Your task to perform on an android device: Clear the shopping cart on ebay. Add acer predator to the cart on ebay Image 0: 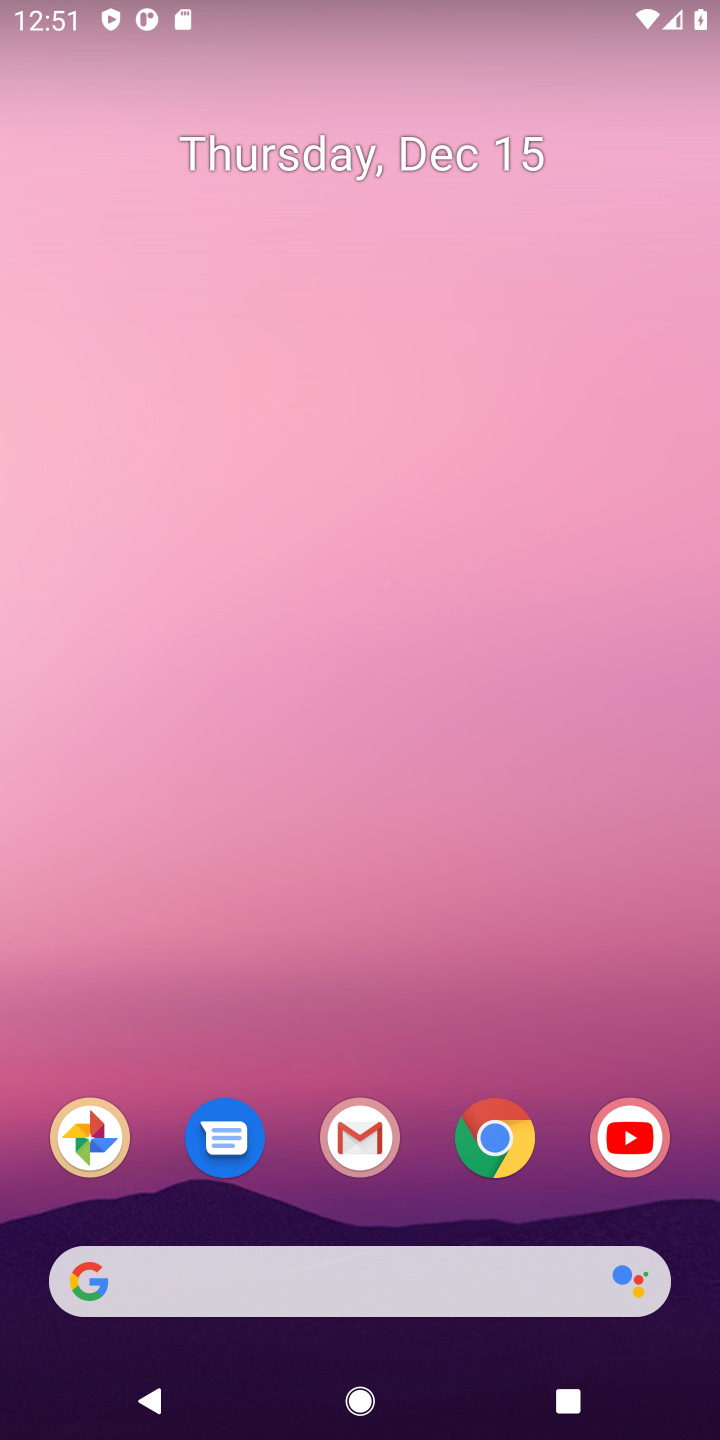
Step 0: click (502, 1150)
Your task to perform on an android device: Clear the shopping cart on ebay. Add acer predator to the cart on ebay Image 1: 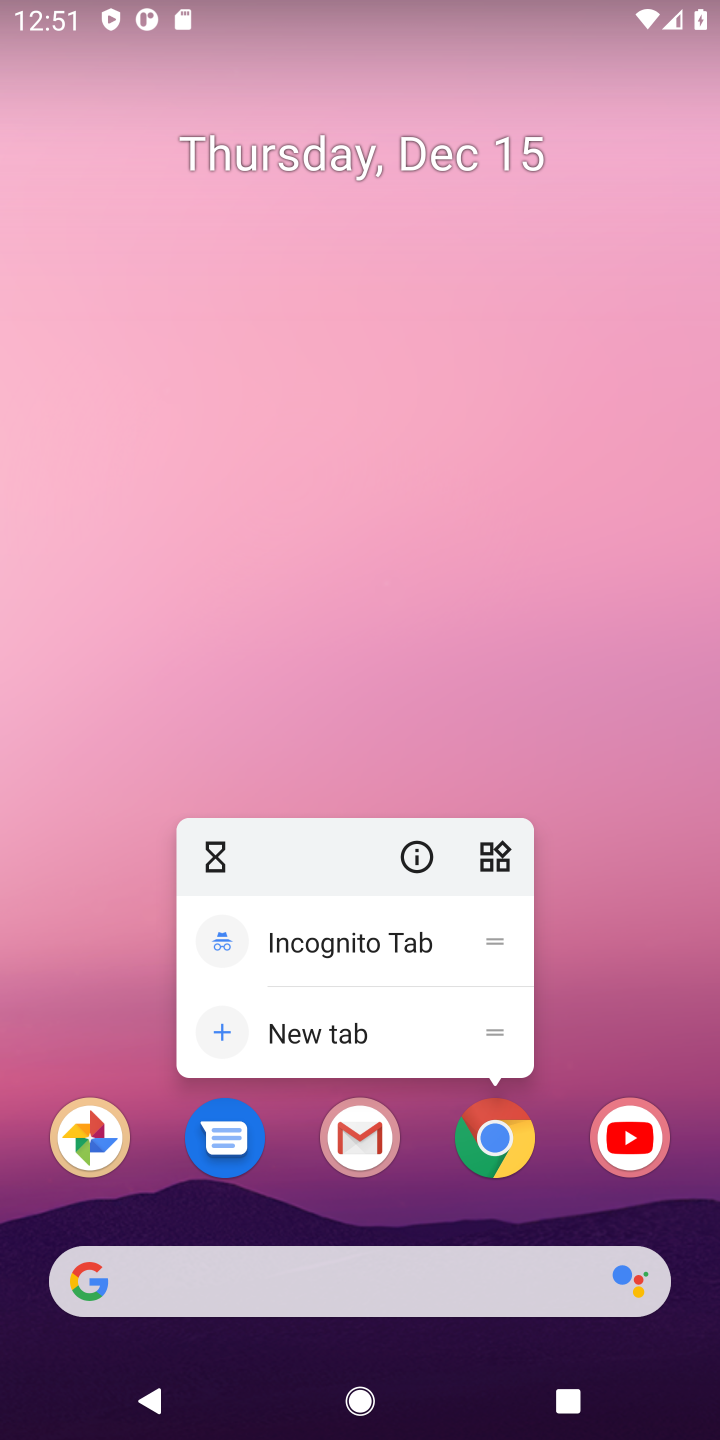
Step 1: click (510, 1177)
Your task to perform on an android device: Clear the shopping cart on ebay. Add acer predator to the cart on ebay Image 2: 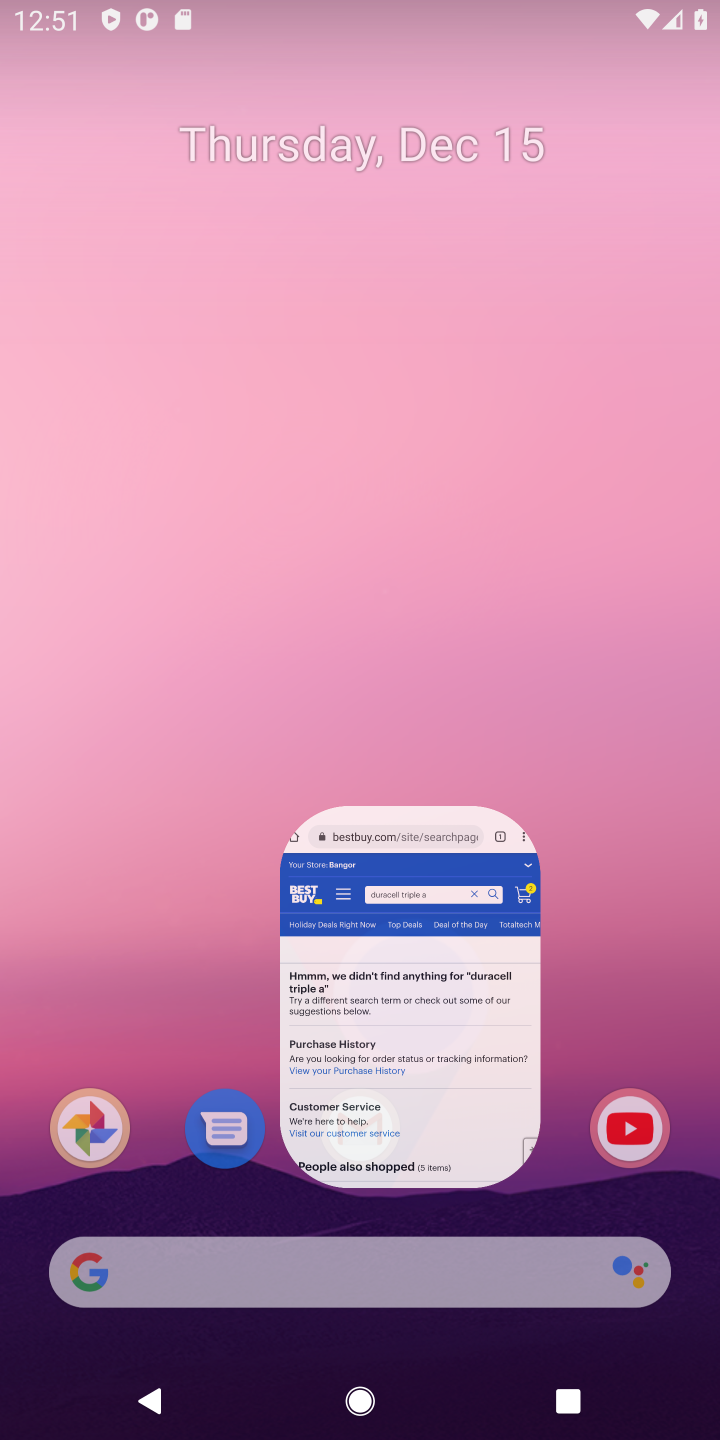
Step 2: click (510, 1177)
Your task to perform on an android device: Clear the shopping cart on ebay. Add acer predator to the cart on ebay Image 3: 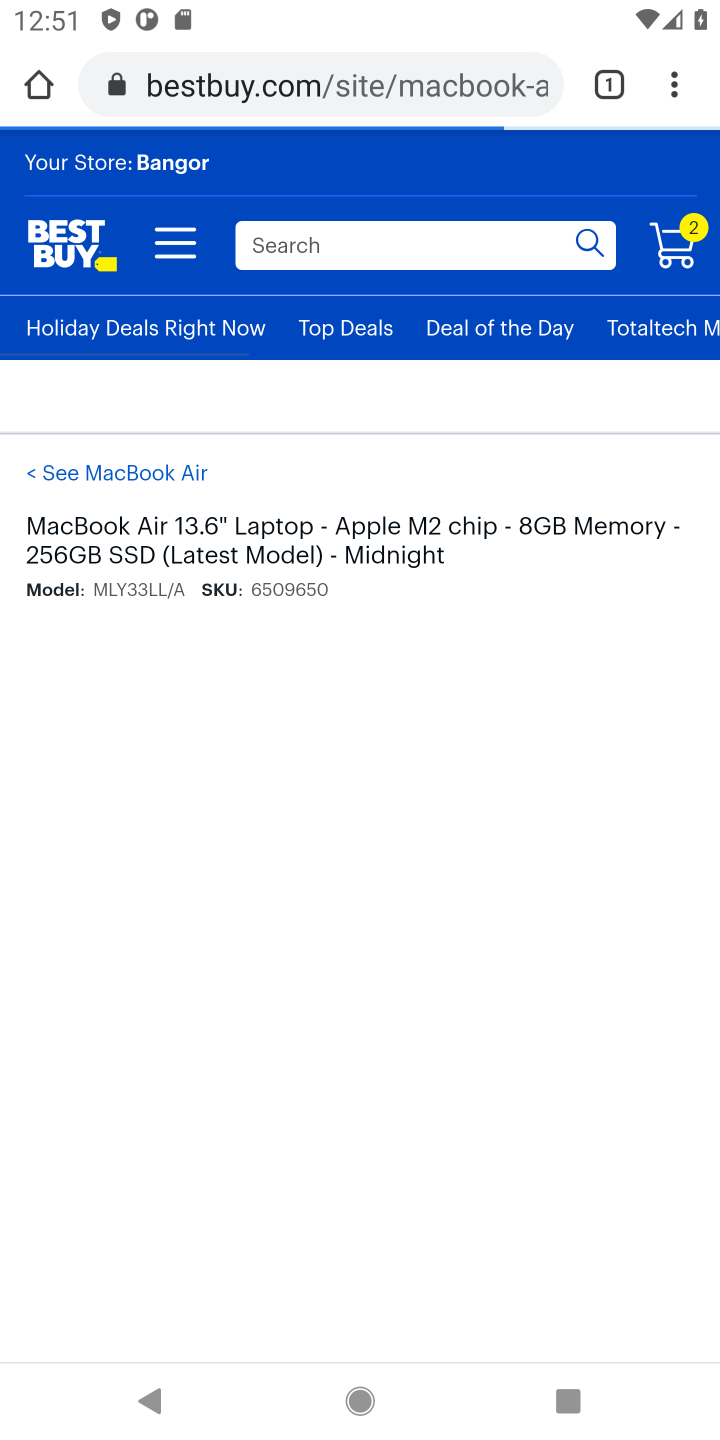
Step 3: click (181, 102)
Your task to perform on an android device: Clear the shopping cart on ebay. Add acer predator to the cart on ebay Image 4: 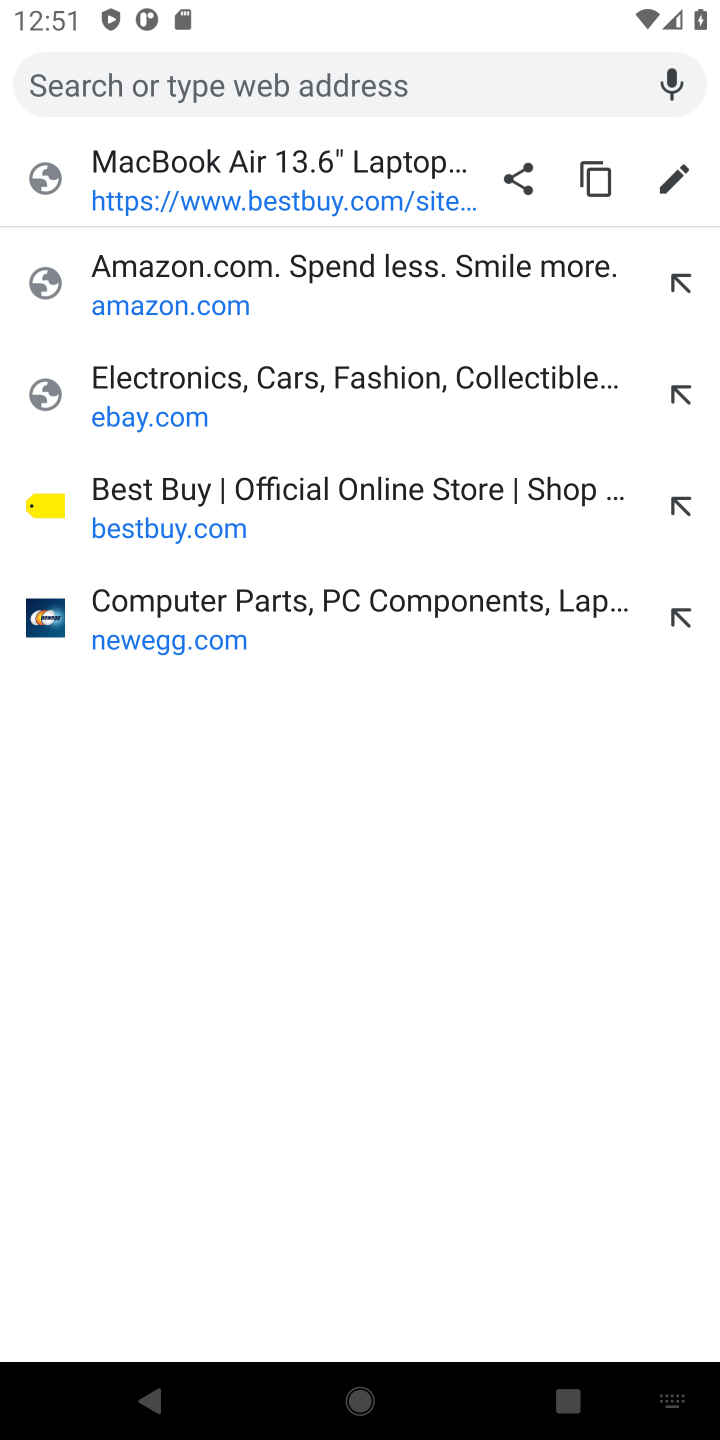
Step 4: click (170, 394)
Your task to perform on an android device: Clear the shopping cart on ebay. Add acer predator to the cart on ebay Image 5: 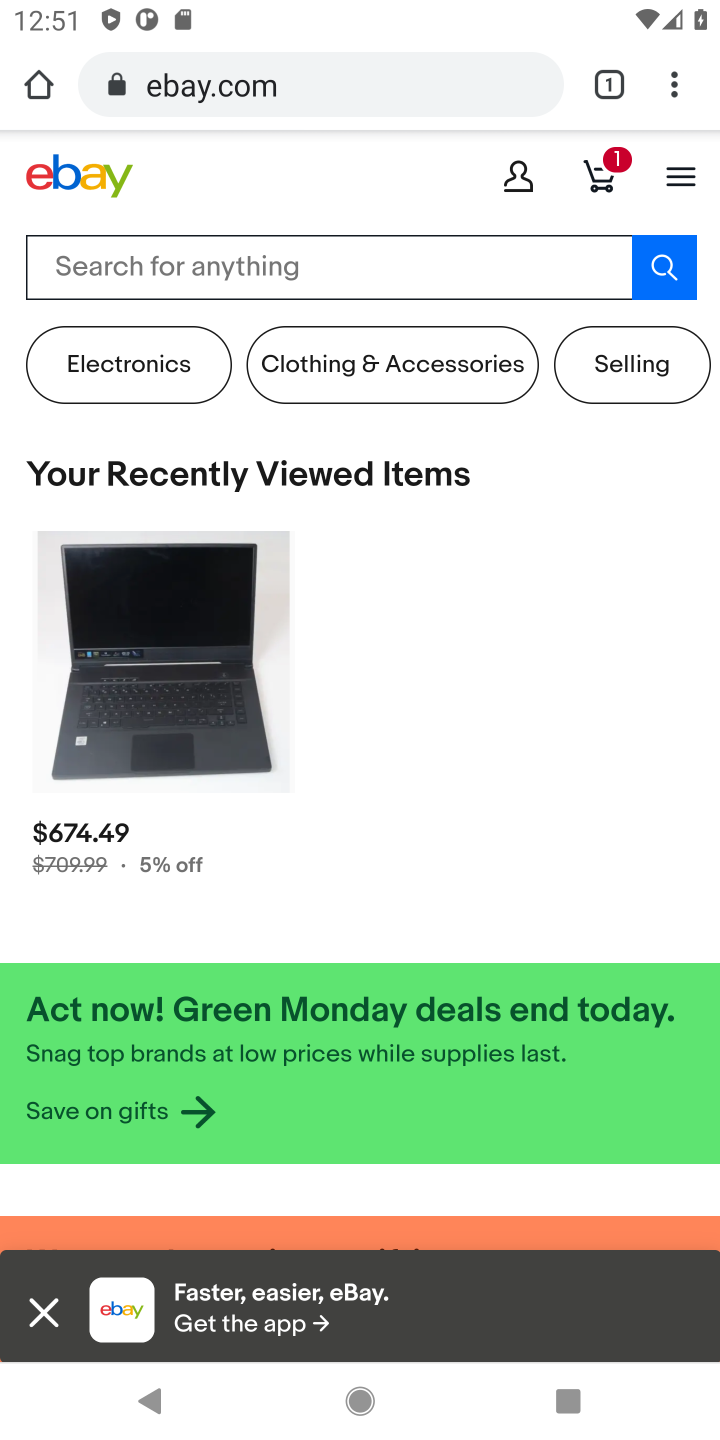
Step 5: click (608, 163)
Your task to perform on an android device: Clear the shopping cart on ebay. Add acer predator to the cart on ebay Image 6: 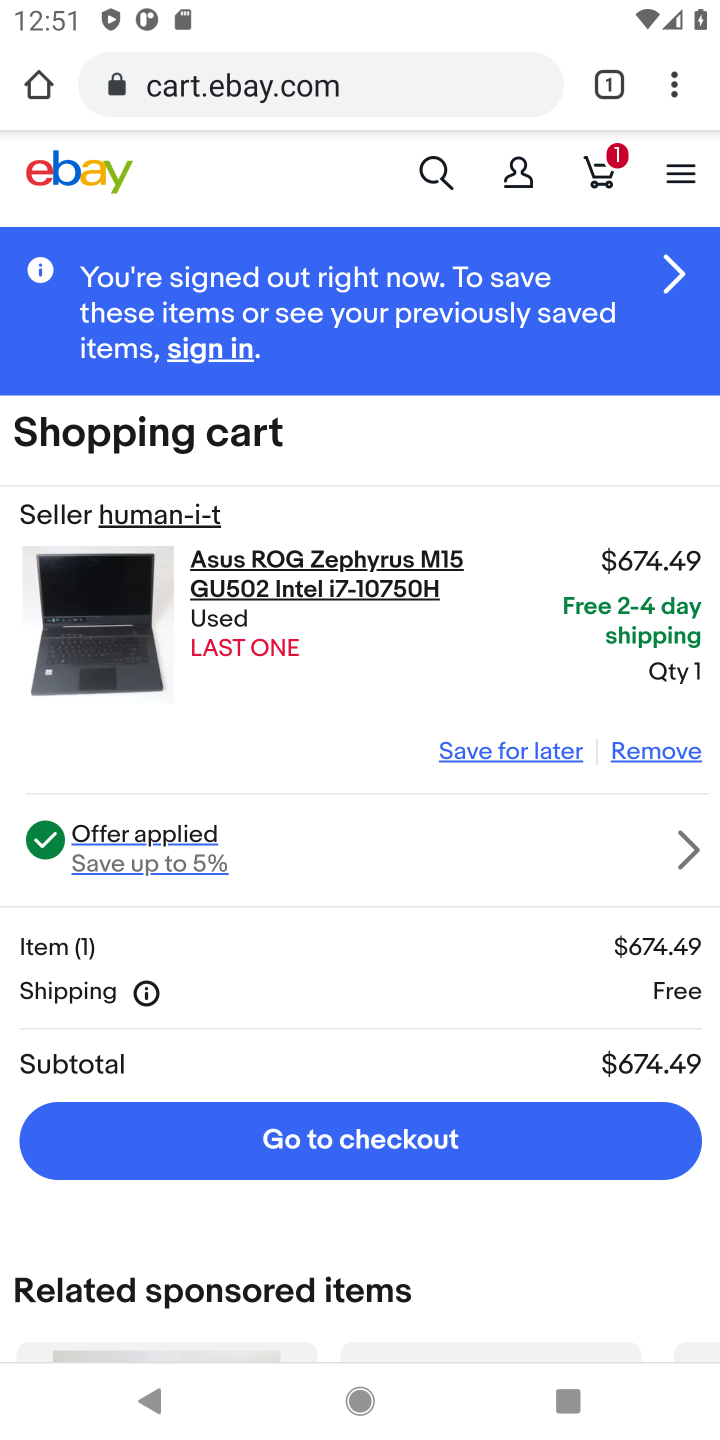
Step 6: click (663, 750)
Your task to perform on an android device: Clear the shopping cart on ebay. Add acer predator to the cart on ebay Image 7: 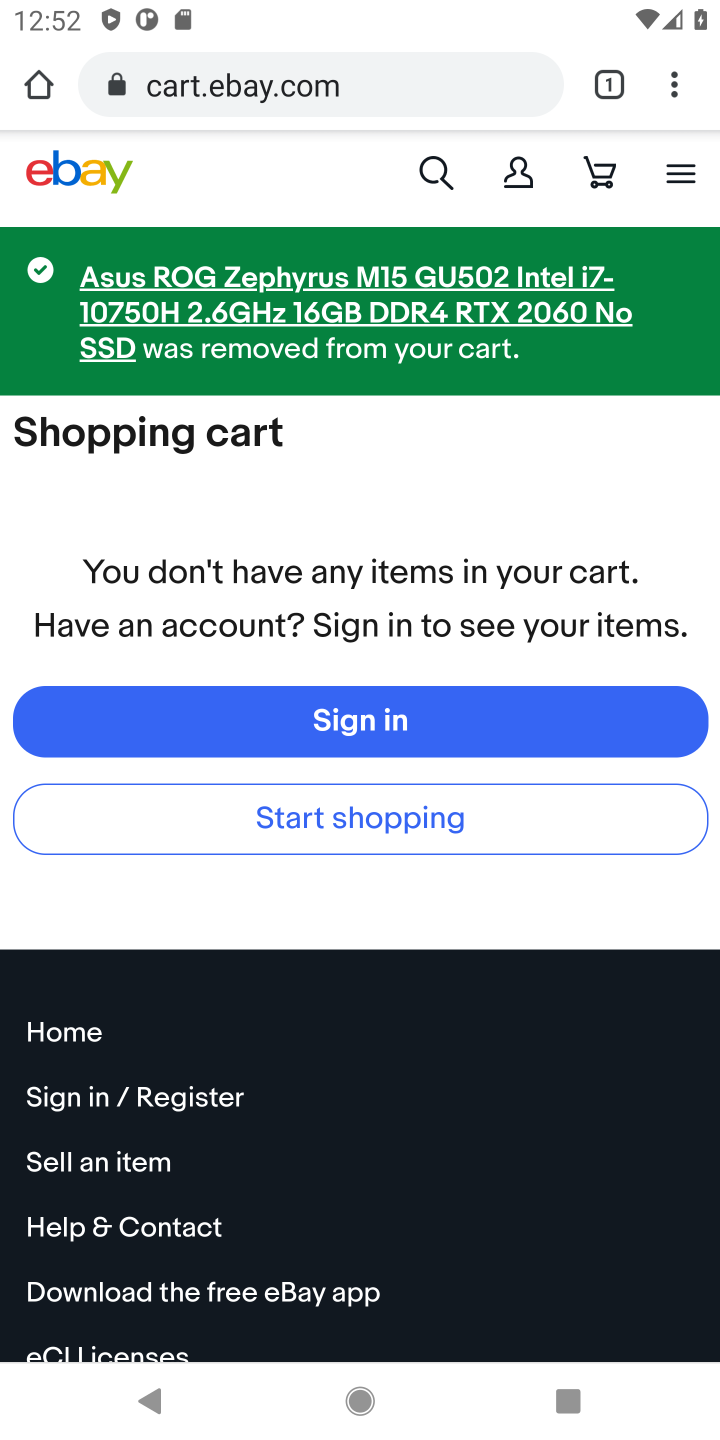
Step 7: click (439, 185)
Your task to perform on an android device: Clear the shopping cart on ebay. Add acer predator to the cart on ebay Image 8: 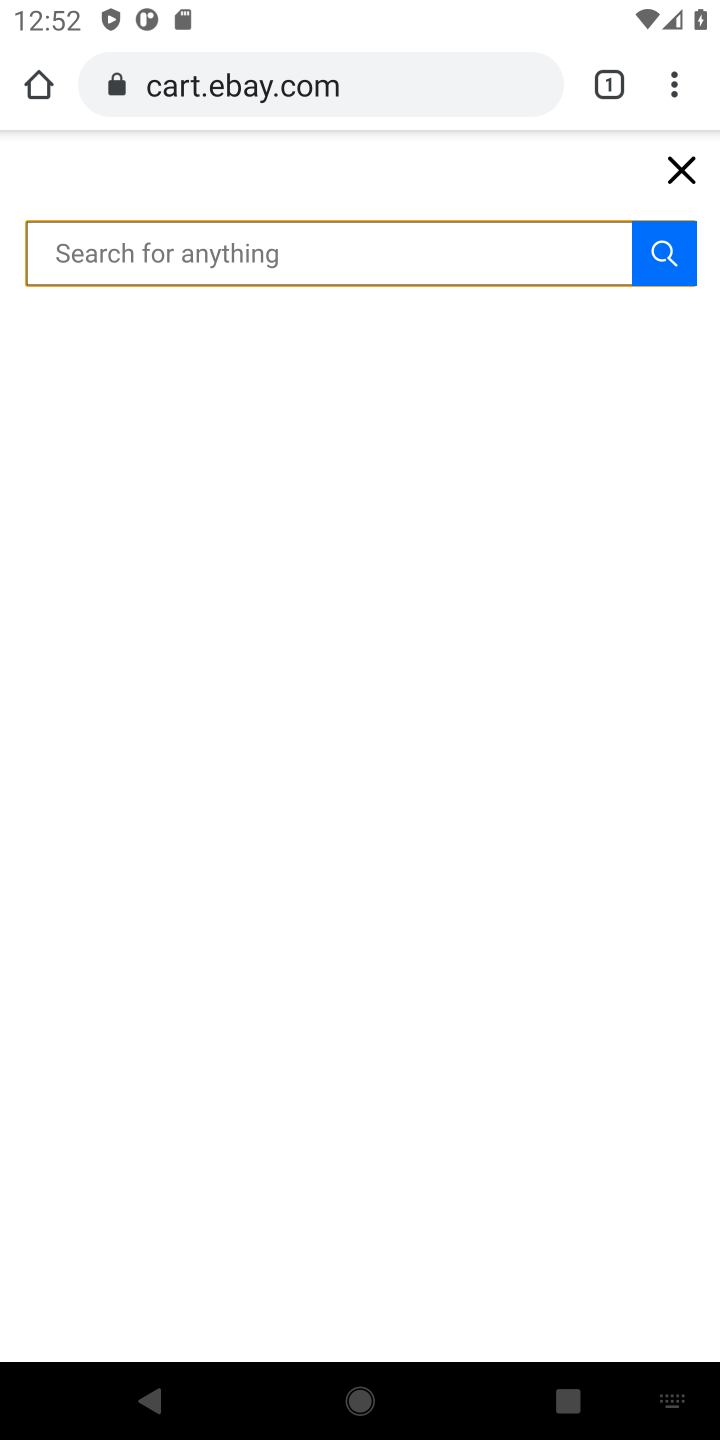
Step 8: type "acer predator"
Your task to perform on an android device: Clear the shopping cart on ebay. Add acer predator to the cart on ebay Image 9: 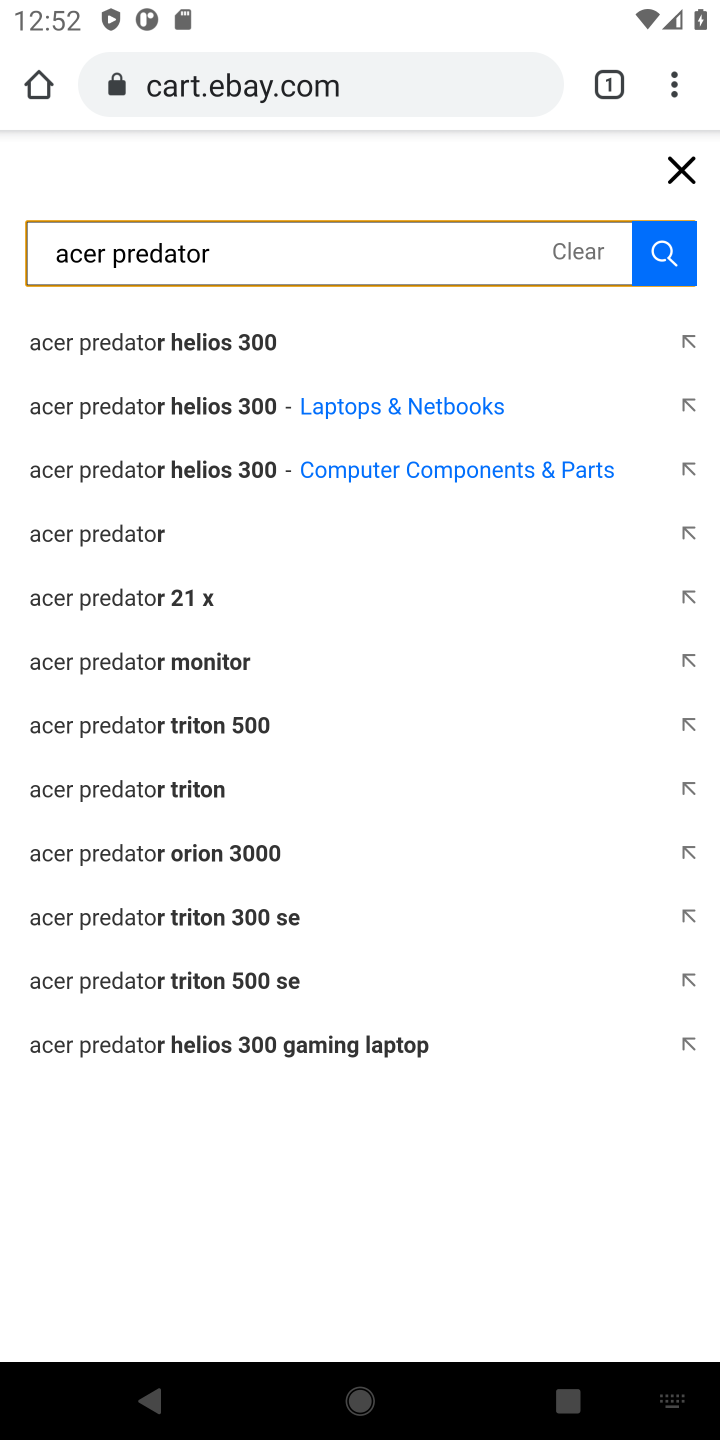
Step 9: click (681, 273)
Your task to perform on an android device: Clear the shopping cart on ebay. Add acer predator to the cart on ebay Image 10: 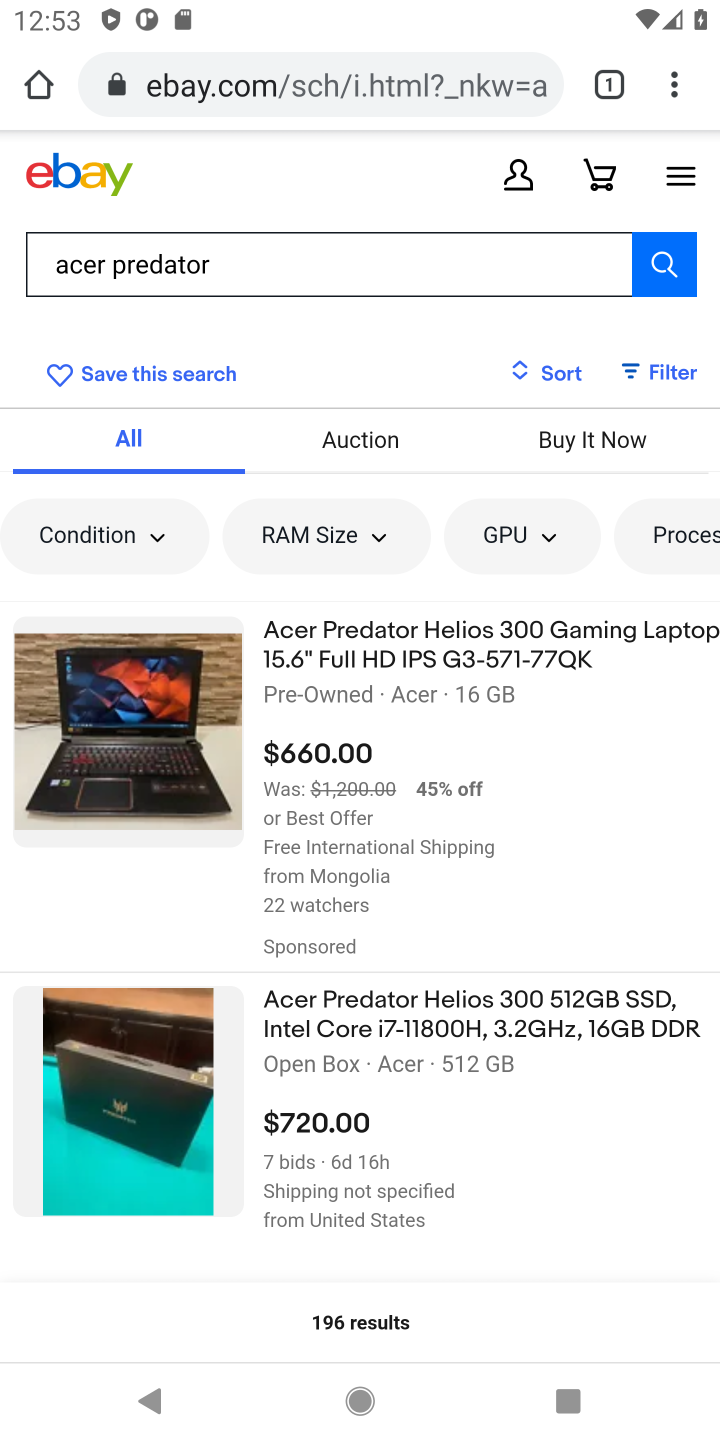
Step 10: click (366, 667)
Your task to perform on an android device: Clear the shopping cart on ebay. Add acer predator to the cart on ebay Image 11: 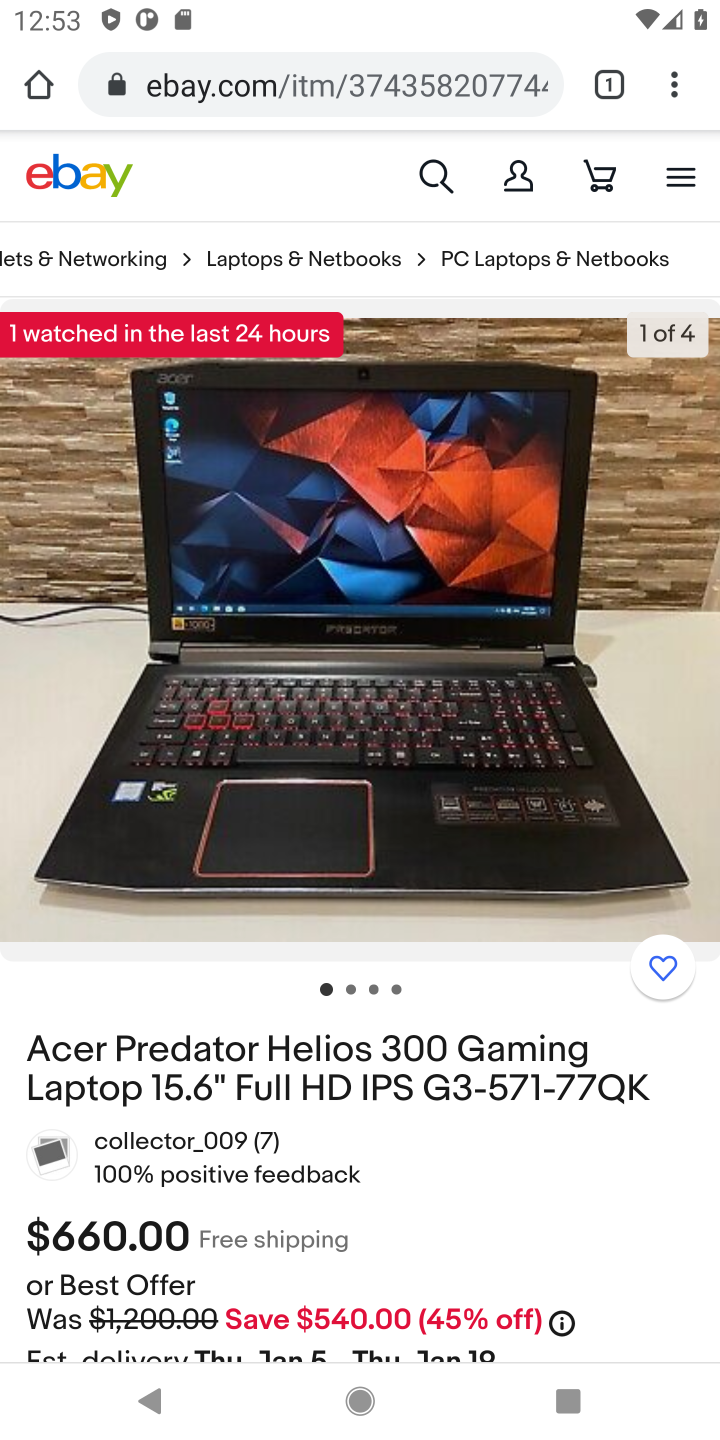
Step 11: drag from (472, 745) to (467, 593)
Your task to perform on an android device: Clear the shopping cart on ebay. Add acer predator to the cart on ebay Image 12: 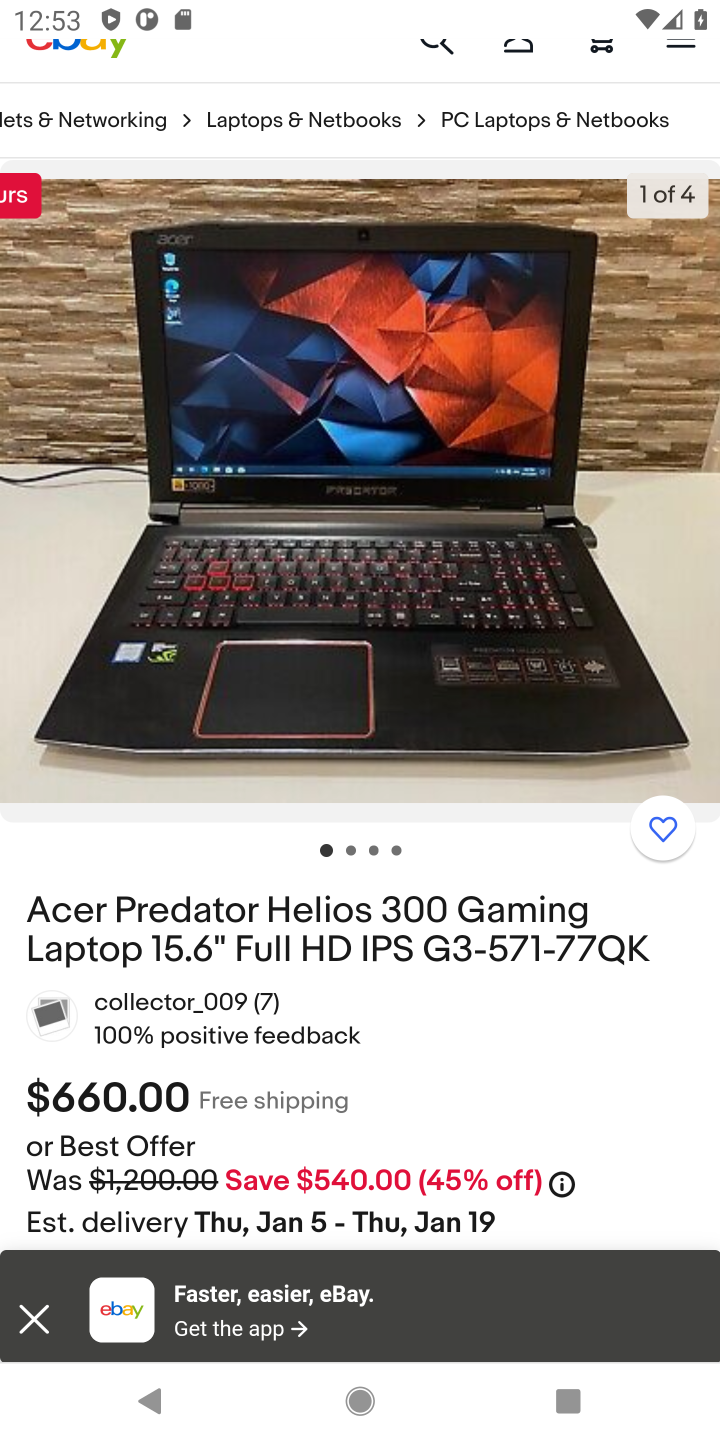
Step 12: drag from (395, 1093) to (356, 161)
Your task to perform on an android device: Clear the shopping cart on ebay. Add acer predator to the cart on ebay Image 13: 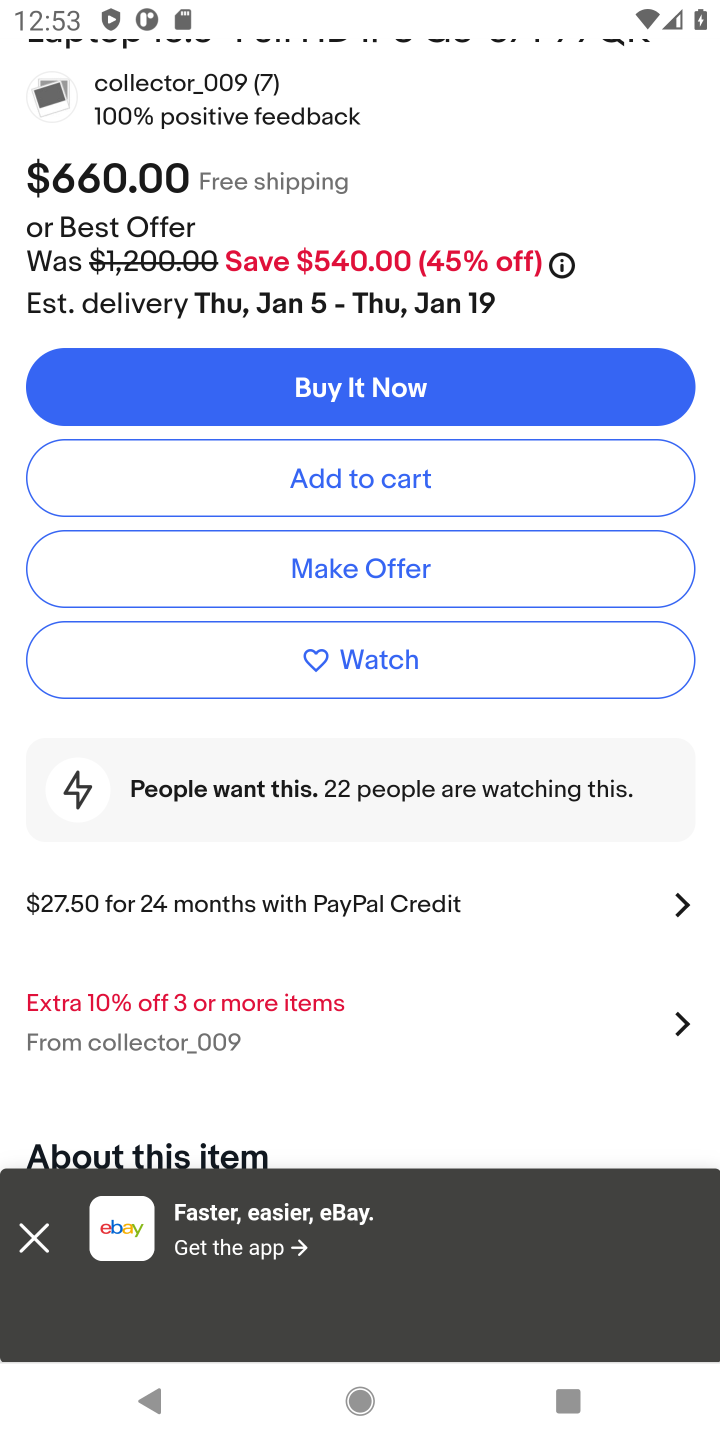
Step 13: click (423, 469)
Your task to perform on an android device: Clear the shopping cart on ebay. Add acer predator to the cart on ebay Image 14: 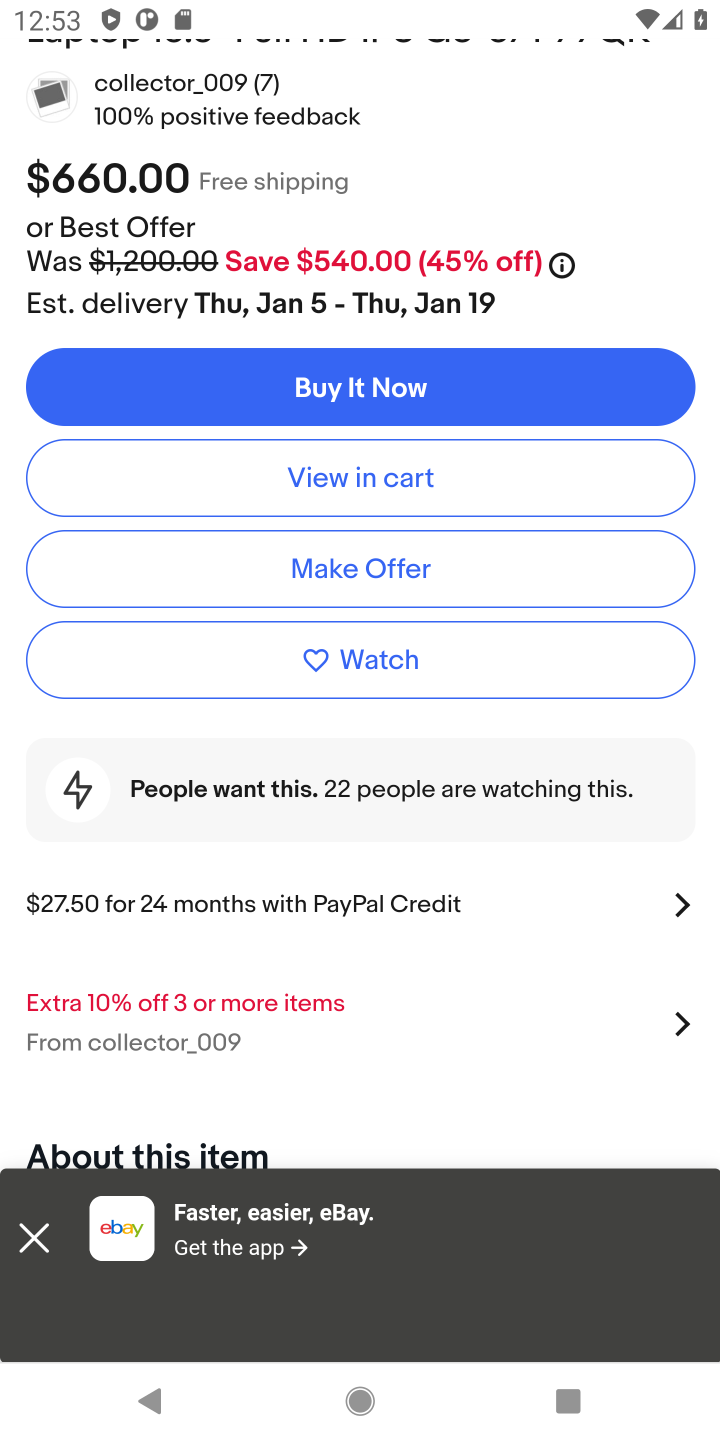
Step 14: click (395, 479)
Your task to perform on an android device: Clear the shopping cart on ebay. Add acer predator to the cart on ebay Image 15: 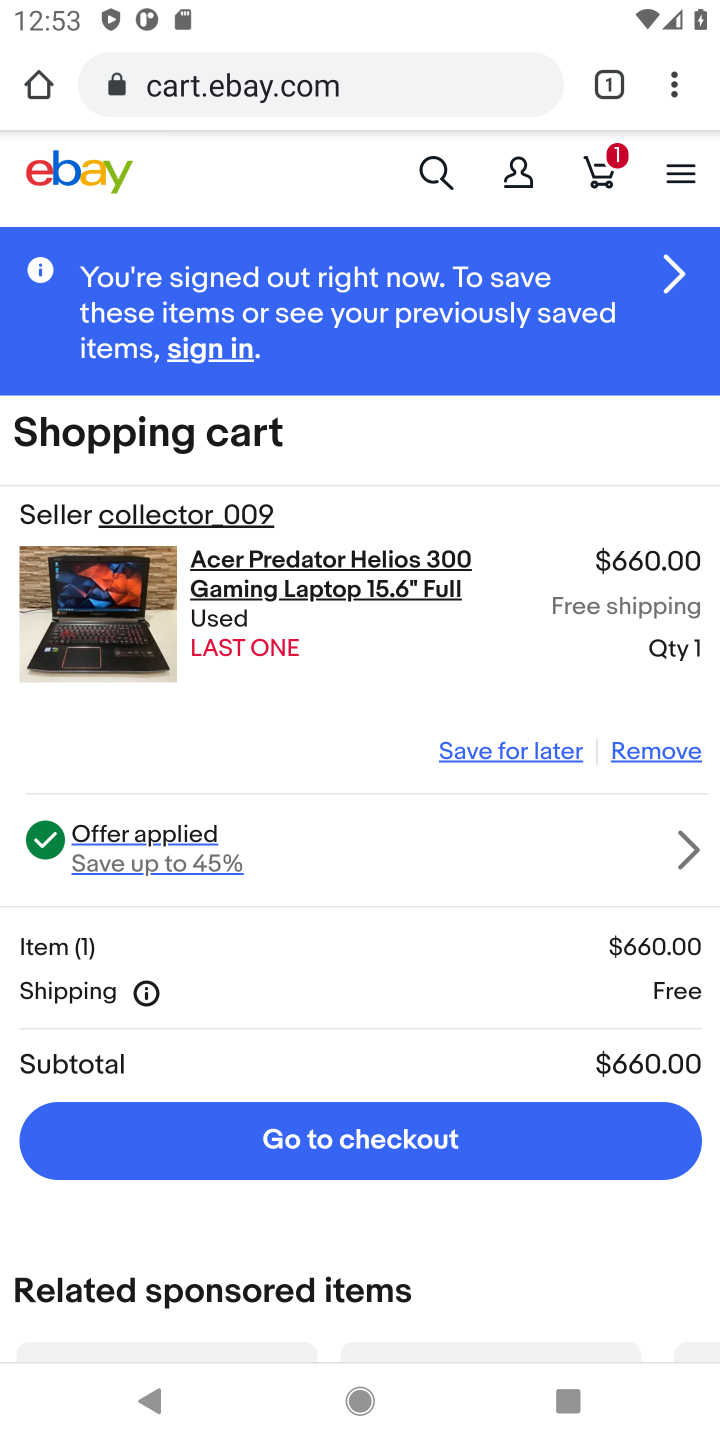
Step 15: task complete